Your task to perform on an android device: Open display settings Image 0: 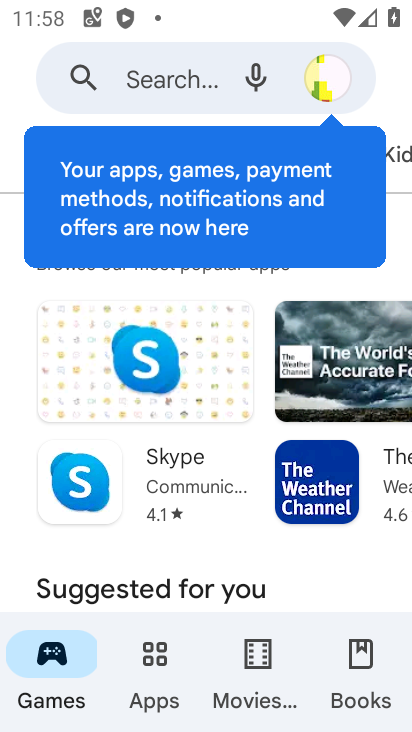
Step 0: press home button
Your task to perform on an android device: Open display settings Image 1: 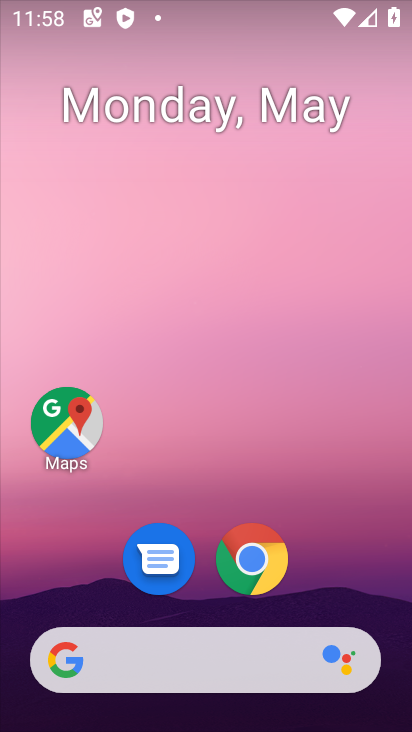
Step 1: drag from (360, 546) to (335, 179)
Your task to perform on an android device: Open display settings Image 2: 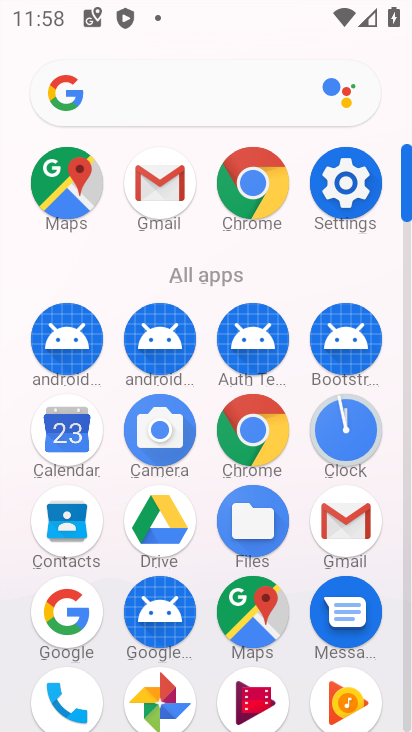
Step 2: click (346, 185)
Your task to perform on an android device: Open display settings Image 3: 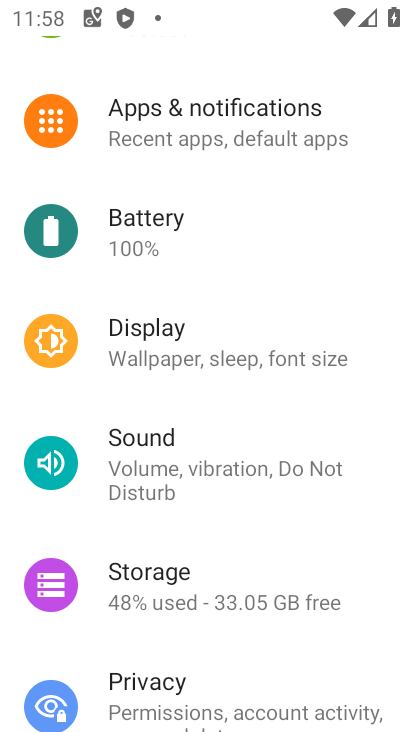
Step 3: click (251, 336)
Your task to perform on an android device: Open display settings Image 4: 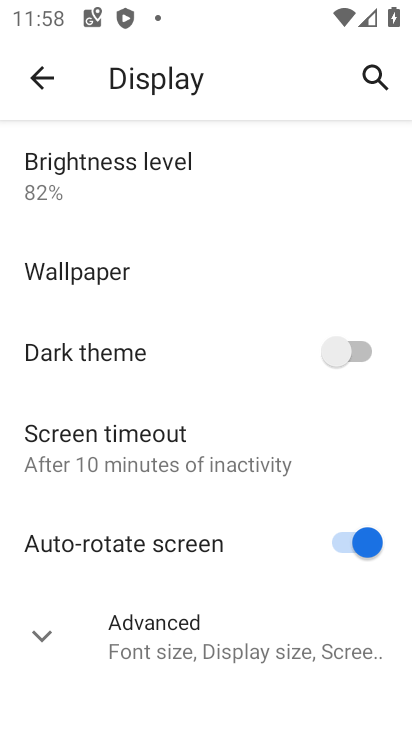
Step 4: task complete